Your task to perform on an android device: View the shopping cart on costco. Search for "macbook pro 13 inch" on costco, select the first entry, add it to the cart, then select checkout. Image 0: 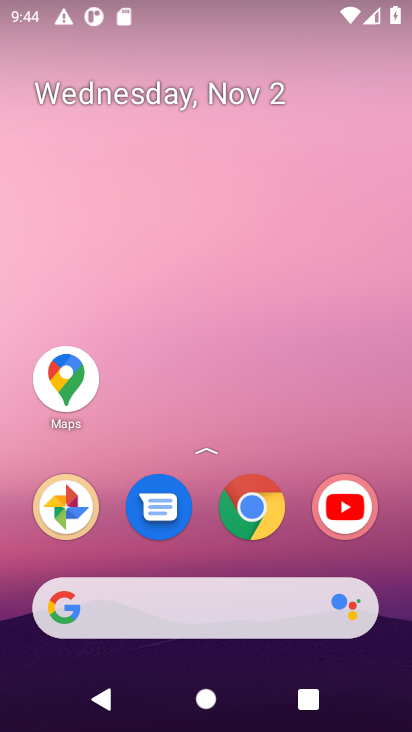
Step 0: click (239, 600)
Your task to perform on an android device: View the shopping cart on costco. Search for "macbook pro 13 inch" on costco, select the first entry, add it to the cart, then select checkout. Image 1: 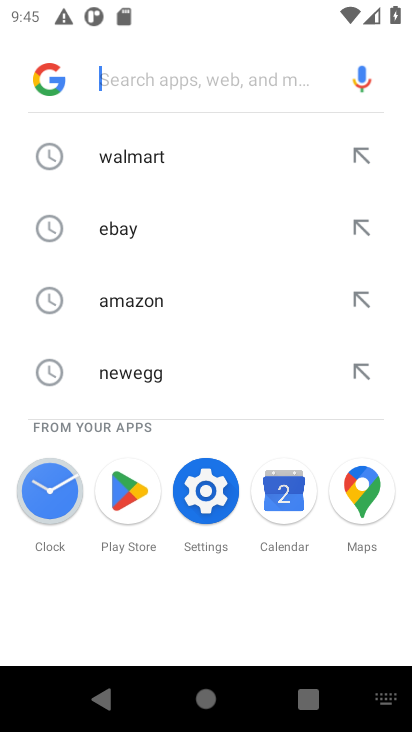
Step 1: type "macbook pro 13 inch"
Your task to perform on an android device: View the shopping cart on costco. Search for "macbook pro 13 inch" on costco, select the first entry, add it to the cart, then select checkout. Image 2: 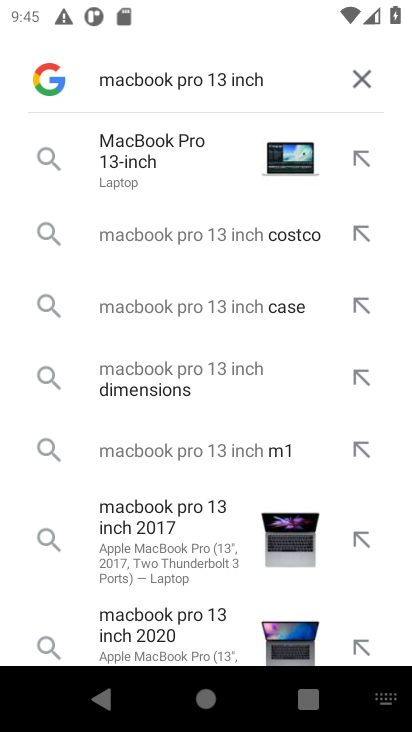
Step 2: click (213, 179)
Your task to perform on an android device: View the shopping cart on costco. Search for "macbook pro 13 inch" on costco, select the first entry, add it to the cart, then select checkout. Image 3: 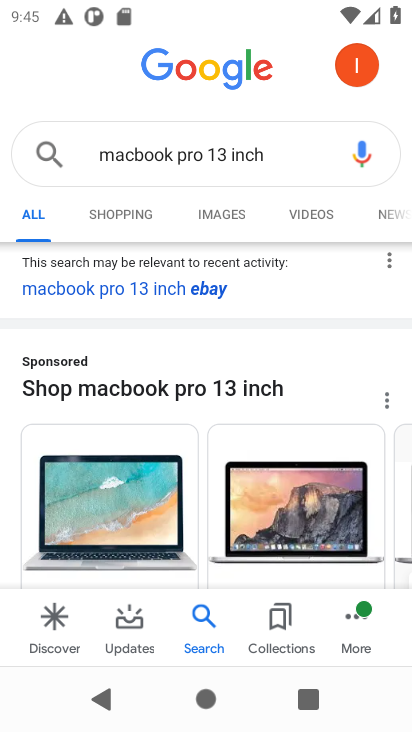
Step 3: click (24, 489)
Your task to perform on an android device: View the shopping cart on costco. Search for "macbook pro 13 inch" on costco, select the first entry, add it to the cart, then select checkout. Image 4: 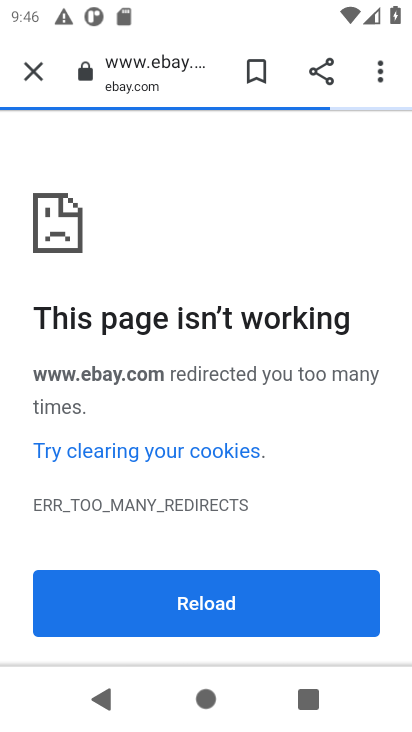
Step 4: task complete